Your task to perform on an android device: change the clock display to analog Image 0: 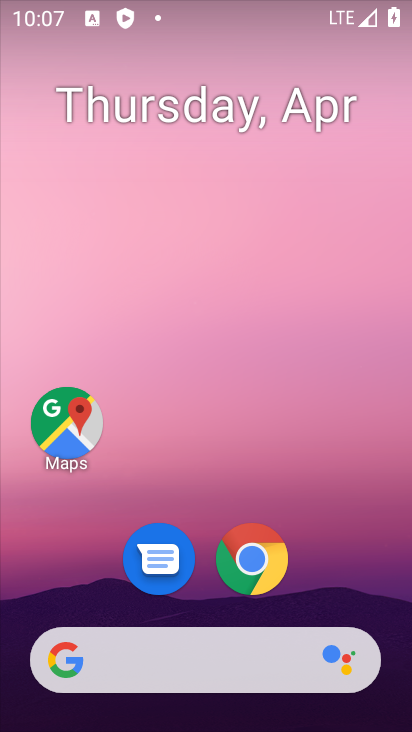
Step 0: drag from (265, 721) to (302, 14)
Your task to perform on an android device: change the clock display to analog Image 1: 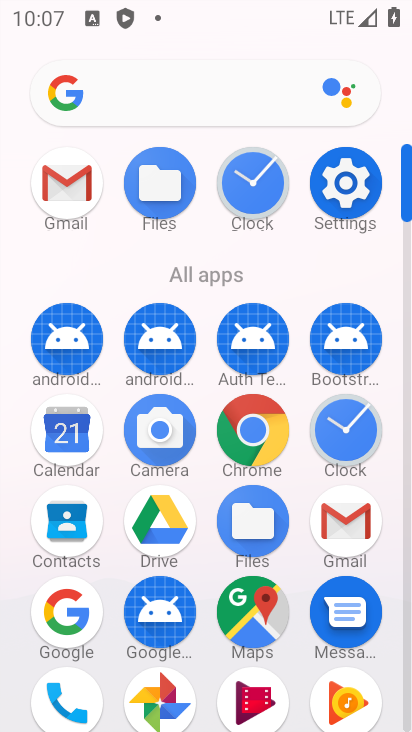
Step 1: click (241, 180)
Your task to perform on an android device: change the clock display to analog Image 2: 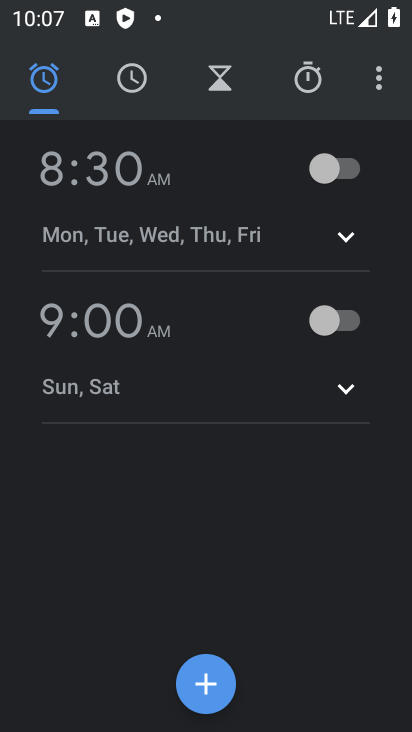
Step 2: click (374, 81)
Your task to perform on an android device: change the clock display to analog Image 3: 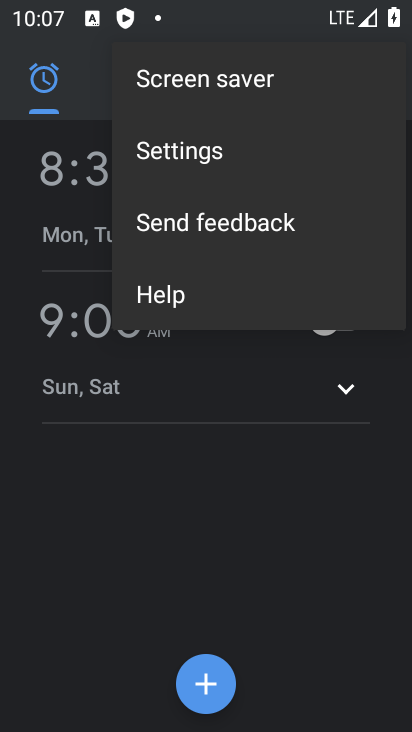
Step 3: click (242, 157)
Your task to perform on an android device: change the clock display to analog Image 4: 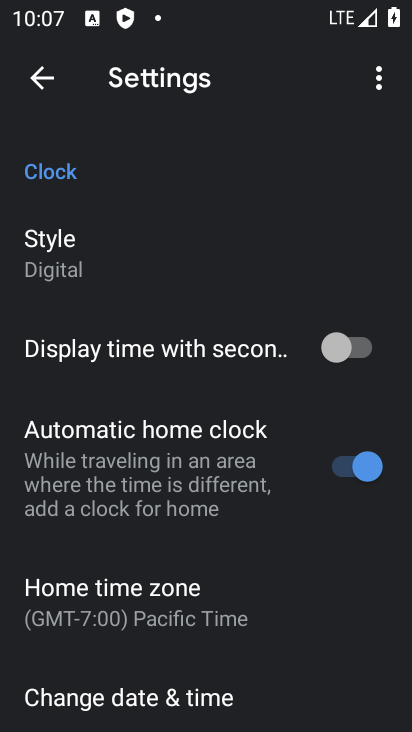
Step 4: click (147, 271)
Your task to perform on an android device: change the clock display to analog Image 5: 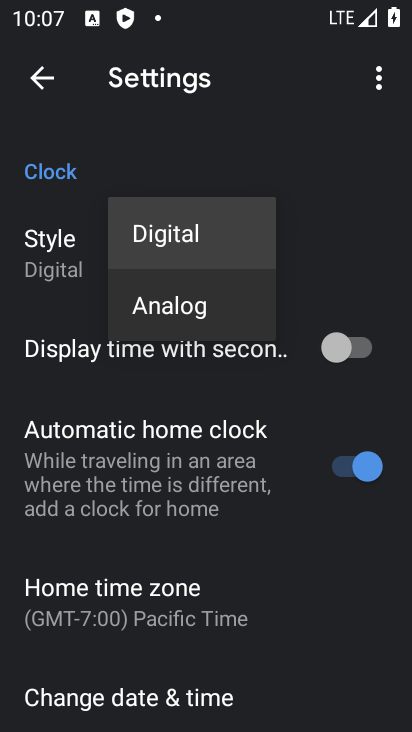
Step 5: click (229, 323)
Your task to perform on an android device: change the clock display to analog Image 6: 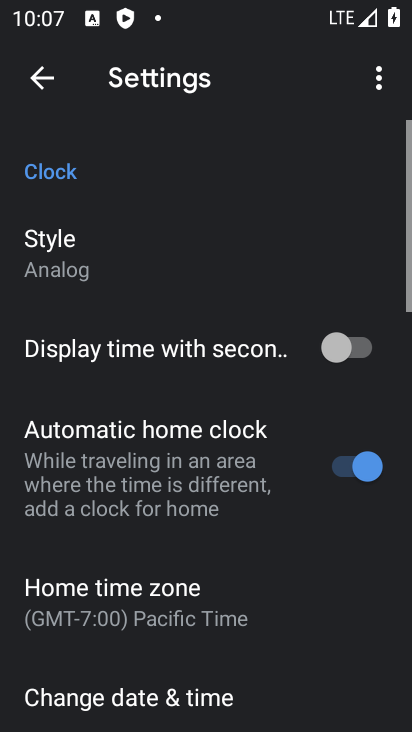
Step 6: task complete